Your task to perform on an android device: delete browsing data in the chrome app Image 0: 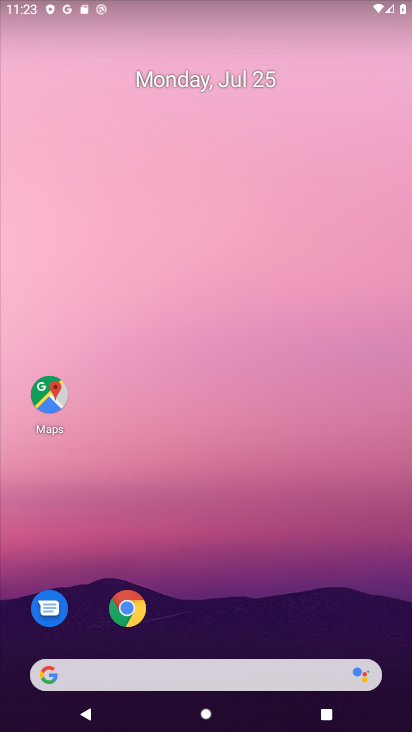
Step 0: click (135, 609)
Your task to perform on an android device: delete browsing data in the chrome app Image 1: 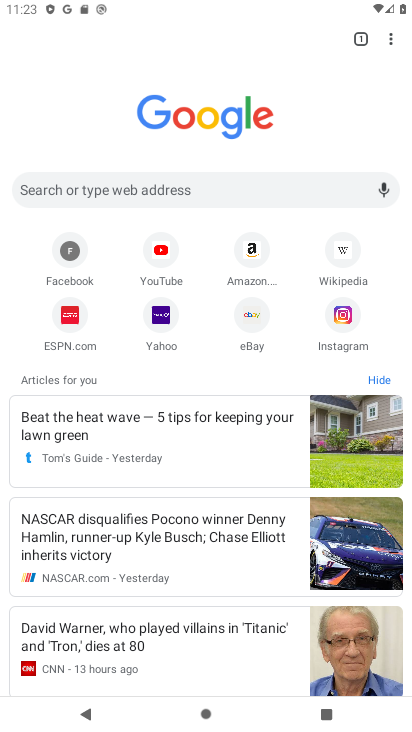
Step 1: click (394, 33)
Your task to perform on an android device: delete browsing data in the chrome app Image 2: 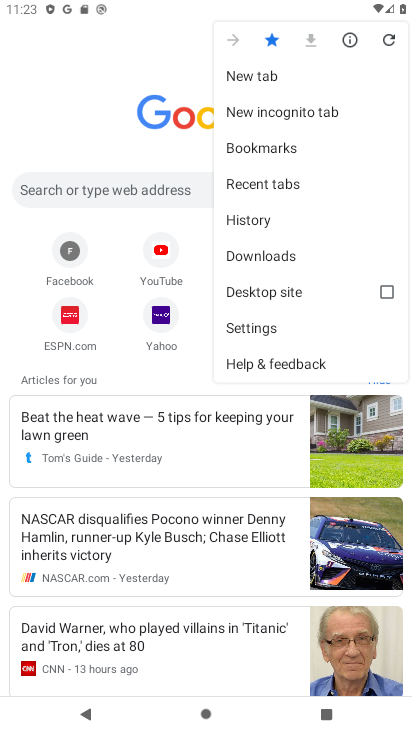
Step 2: click (311, 232)
Your task to perform on an android device: delete browsing data in the chrome app Image 3: 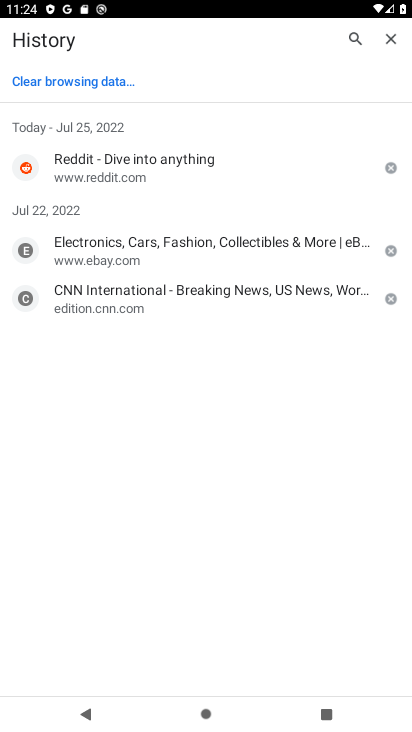
Step 3: click (122, 79)
Your task to perform on an android device: delete browsing data in the chrome app Image 4: 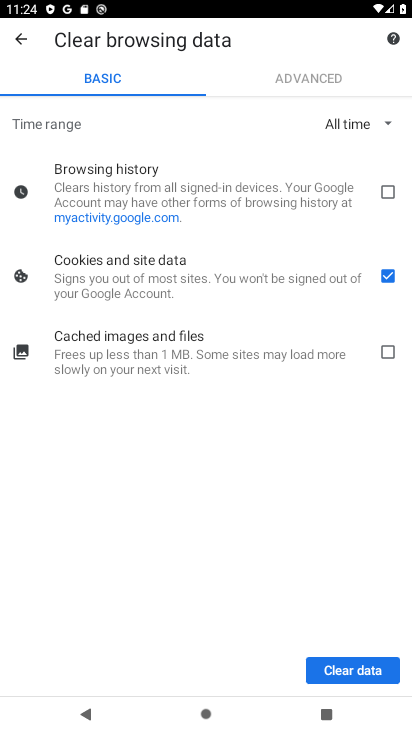
Step 4: click (387, 194)
Your task to perform on an android device: delete browsing data in the chrome app Image 5: 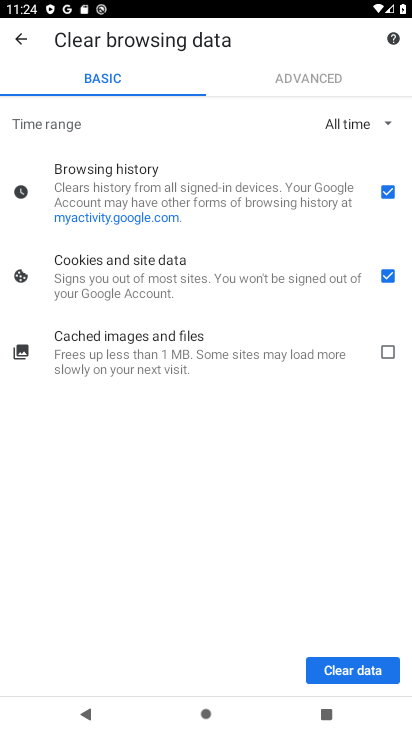
Step 5: click (386, 269)
Your task to perform on an android device: delete browsing data in the chrome app Image 6: 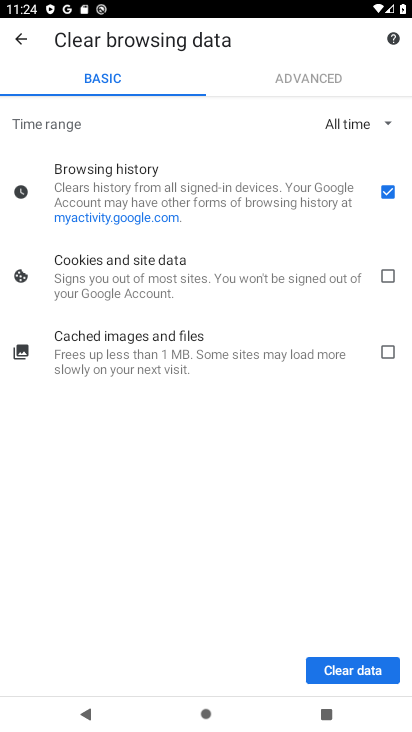
Step 6: click (363, 673)
Your task to perform on an android device: delete browsing data in the chrome app Image 7: 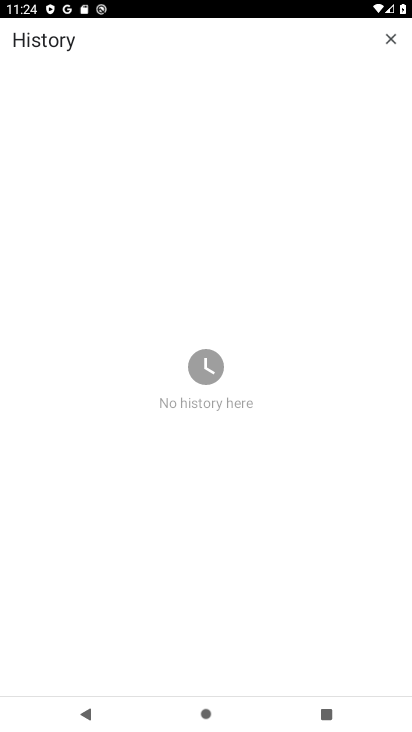
Step 7: task complete